Your task to perform on an android device: turn on showing notifications on the lock screen Image 0: 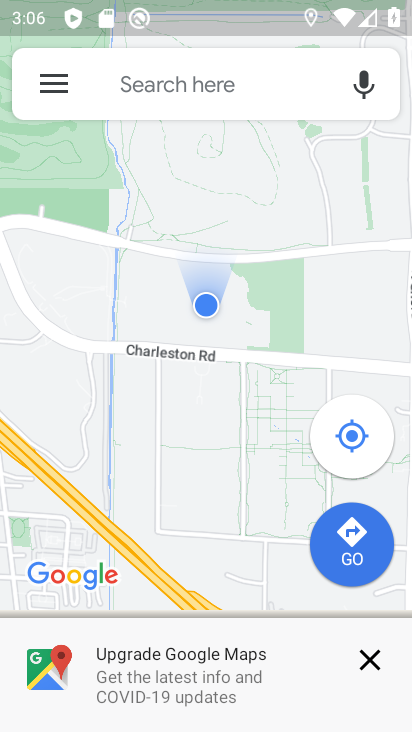
Step 0: press home button
Your task to perform on an android device: turn on showing notifications on the lock screen Image 1: 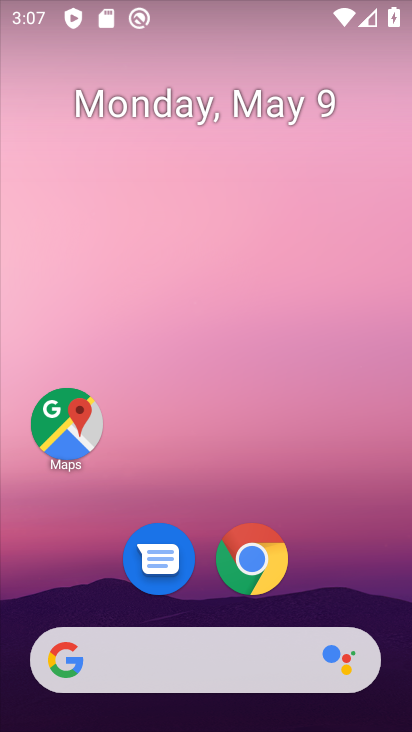
Step 1: drag from (231, 720) to (239, 173)
Your task to perform on an android device: turn on showing notifications on the lock screen Image 2: 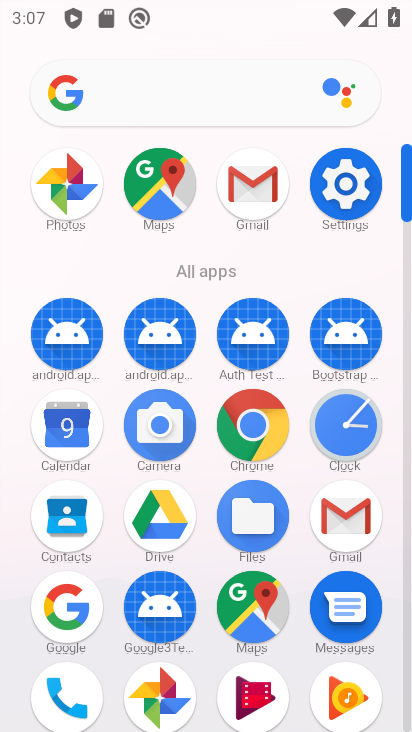
Step 2: click (347, 188)
Your task to perform on an android device: turn on showing notifications on the lock screen Image 3: 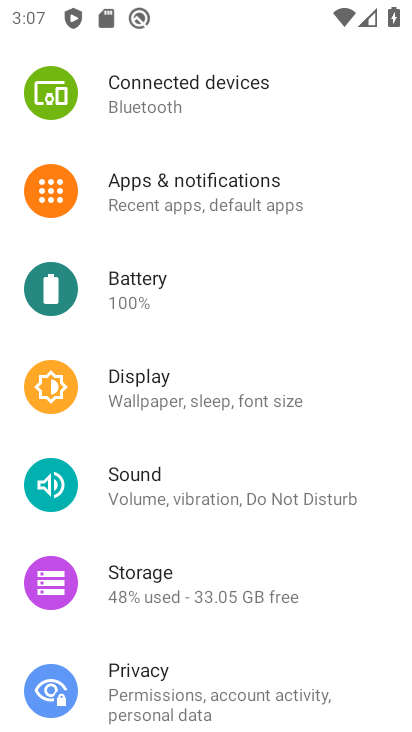
Step 3: click (204, 187)
Your task to perform on an android device: turn on showing notifications on the lock screen Image 4: 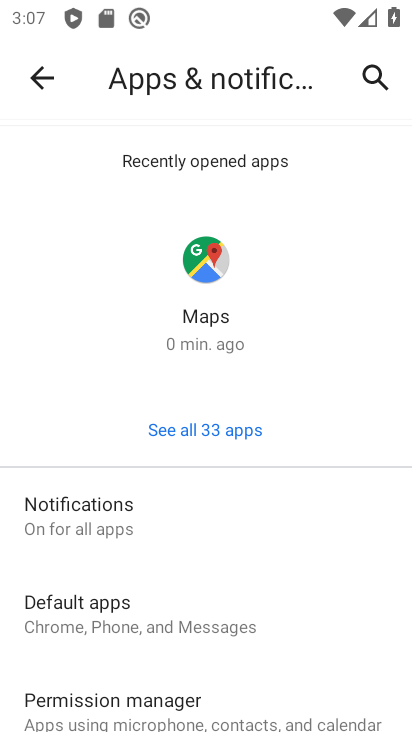
Step 4: click (77, 527)
Your task to perform on an android device: turn on showing notifications on the lock screen Image 5: 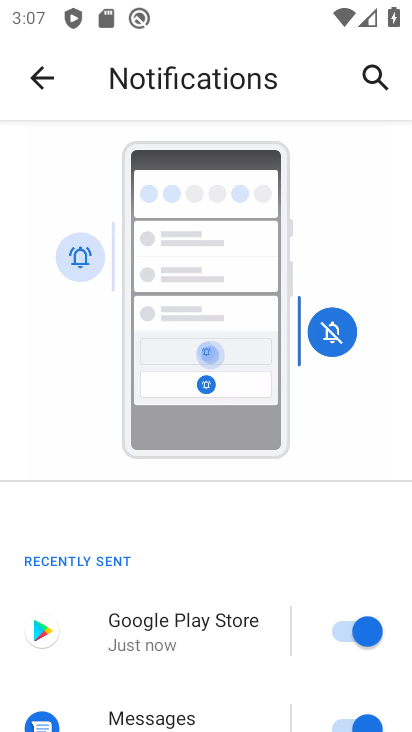
Step 5: task complete